Your task to perform on an android device: turn off javascript in the chrome app Image 0: 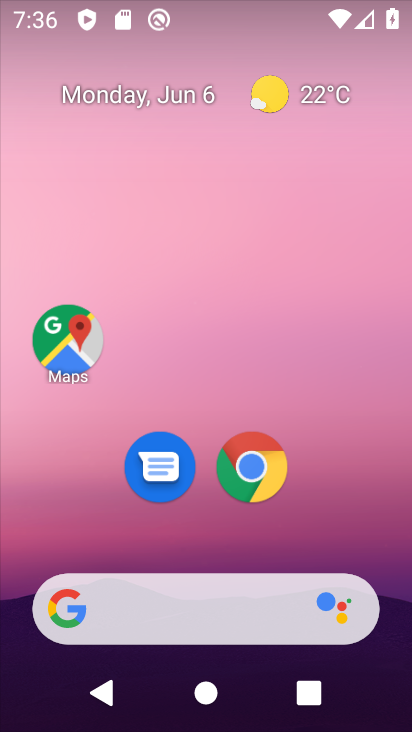
Step 0: drag from (377, 540) to (391, 126)
Your task to perform on an android device: turn off javascript in the chrome app Image 1: 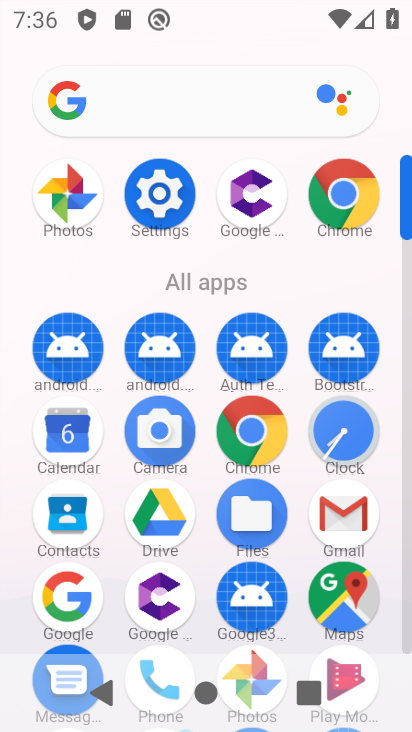
Step 1: click (269, 424)
Your task to perform on an android device: turn off javascript in the chrome app Image 2: 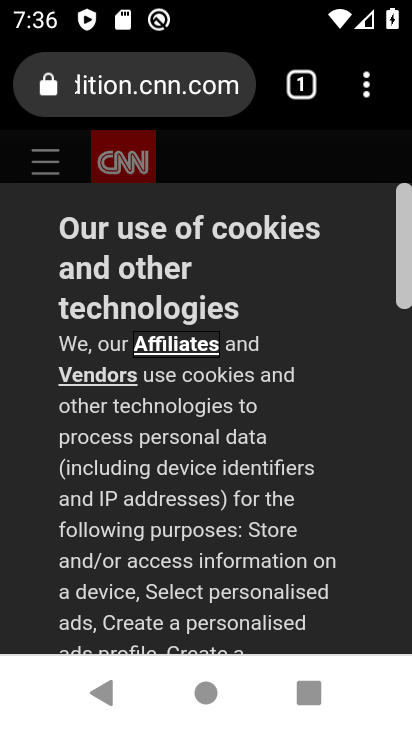
Step 2: click (368, 97)
Your task to perform on an android device: turn off javascript in the chrome app Image 3: 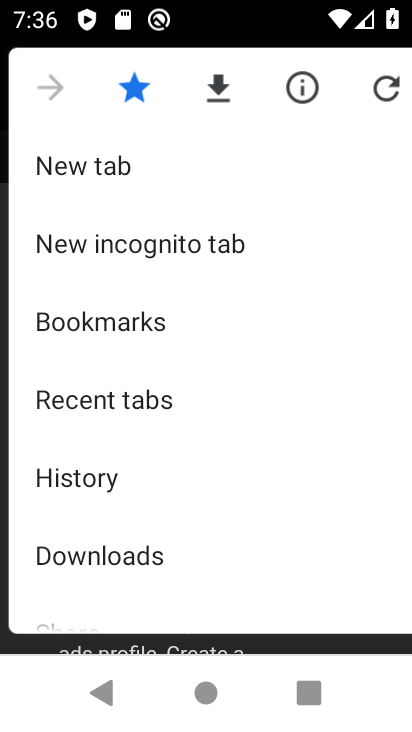
Step 3: drag from (350, 491) to (359, 352)
Your task to perform on an android device: turn off javascript in the chrome app Image 4: 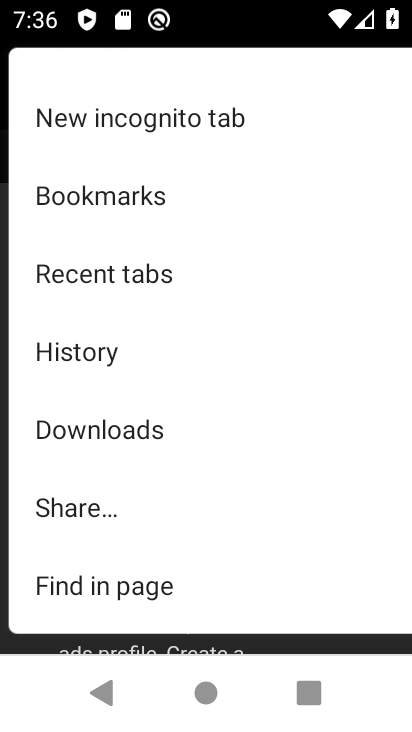
Step 4: drag from (339, 525) to (336, 366)
Your task to perform on an android device: turn off javascript in the chrome app Image 5: 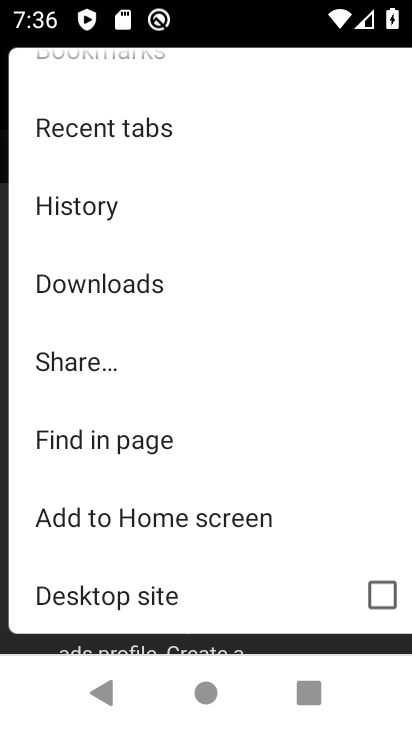
Step 5: drag from (334, 493) to (319, 341)
Your task to perform on an android device: turn off javascript in the chrome app Image 6: 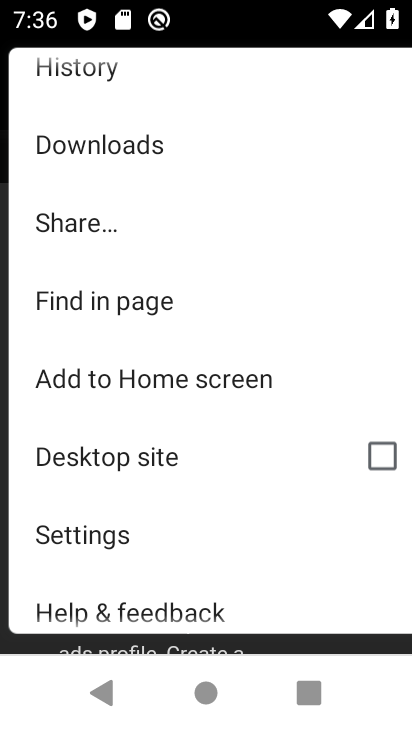
Step 6: drag from (288, 459) to (292, 293)
Your task to perform on an android device: turn off javascript in the chrome app Image 7: 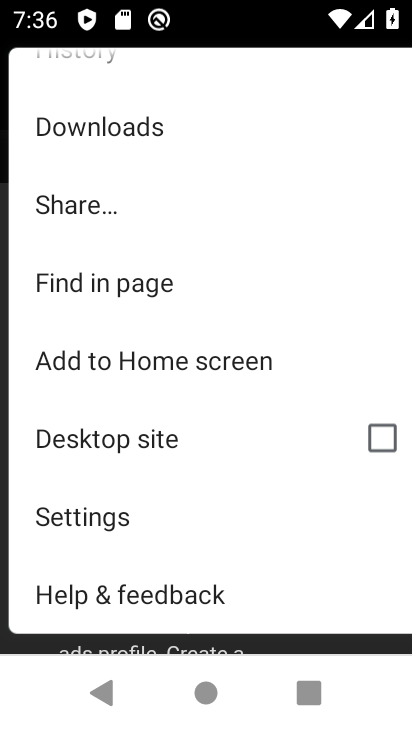
Step 7: click (190, 521)
Your task to perform on an android device: turn off javascript in the chrome app Image 8: 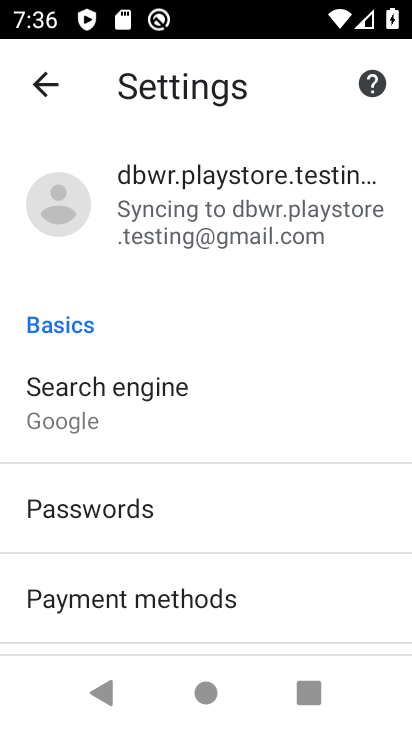
Step 8: drag from (335, 510) to (332, 351)
Your task to perform on an android device: turn off javascript in the chrome app Image 9: 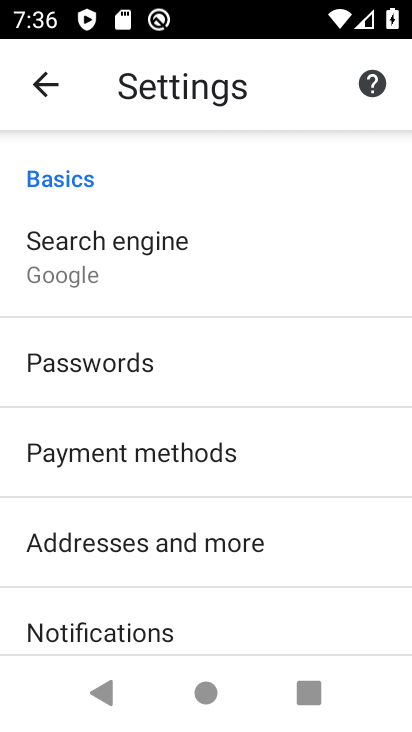
Step 9: drag from (349, 505) to (344, 349)
Your task to perform on an android device: turn off javascript in the chrome app Image 10: 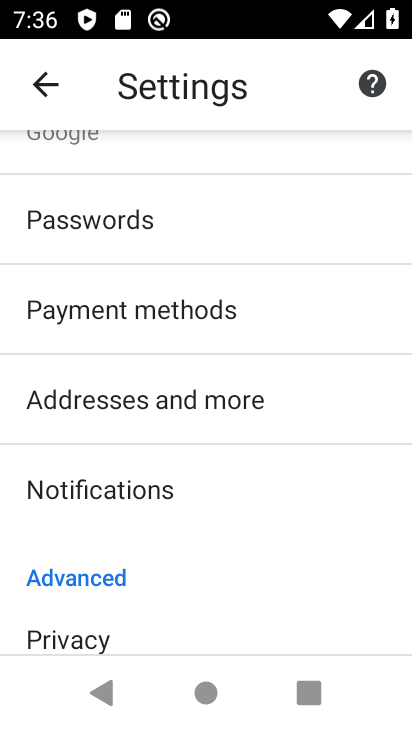
Step 10: drag from (331, 471) to (343, 337)
Your task to perform on an android device: turn off javascript in the chrome app Image 11: 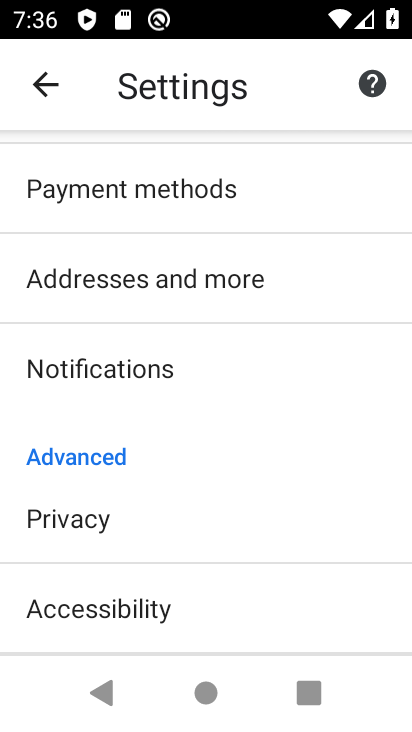
Step 11: drag from (339, 526) to (332, 383)
Your task to perform on an android device: turn off javascript in the chrome app Image 12: 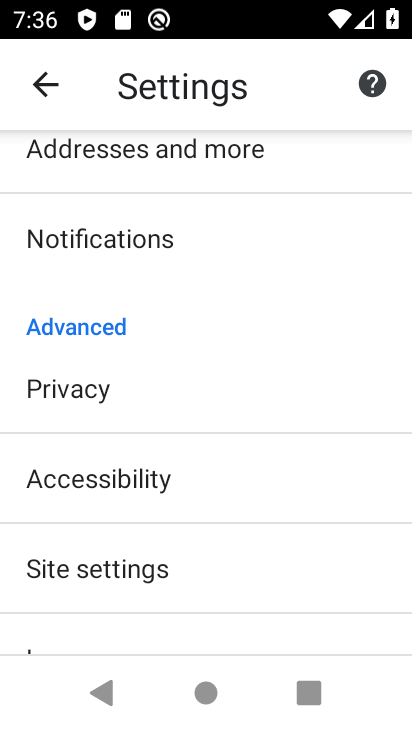
Step 12: drag from (332, 546) to (343, 396)
Your task to perform on an android device: turn off javascript in the chrome app Image 13: 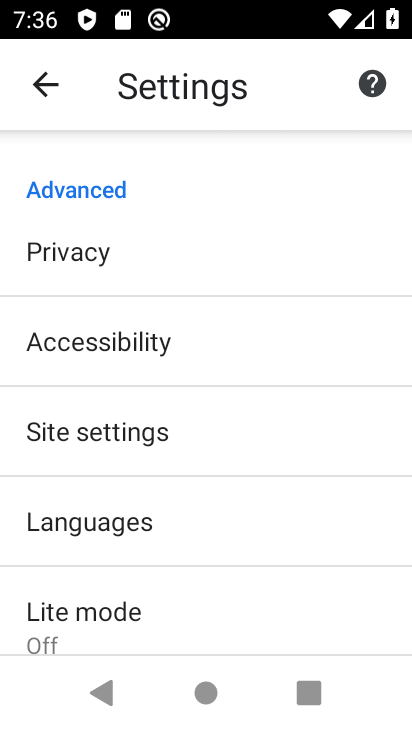
Step 13: drag from (331, 564) to (326, 457)
Your task to perform on an android device: turn off javascript in the chrome app Image 14: 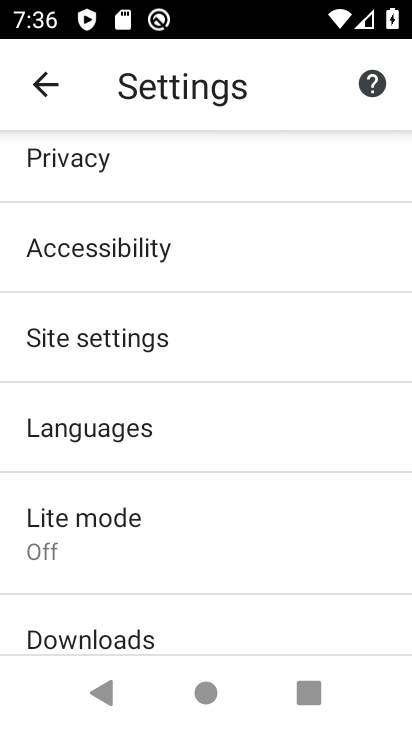
Step 14: click (246, 341)
Your task to perform on an android device: turn off javascript in the chrome app Image 15: 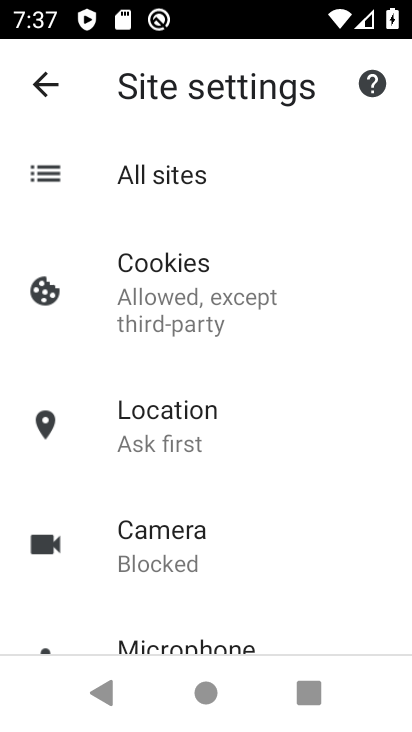
Step 15: drag from (317, 520) to (312, 403)
Your task to perform on an android device: turn off javascript in the chrome app Image 16: 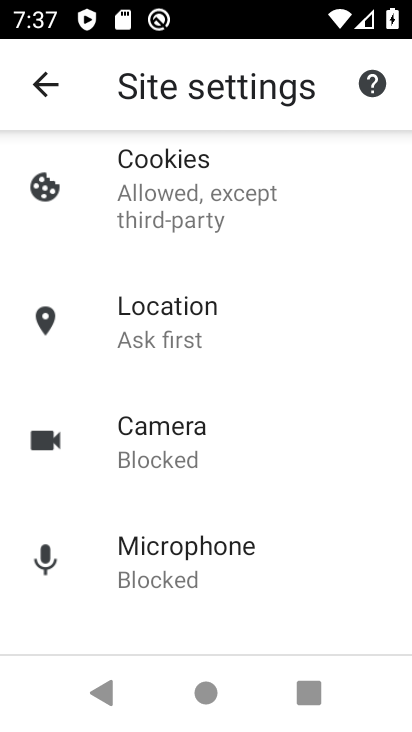
Step 16: drag from (326, 517) to (352, 383)
Your task to perform on an android device: turn off javascript in the chrome app Image 17: 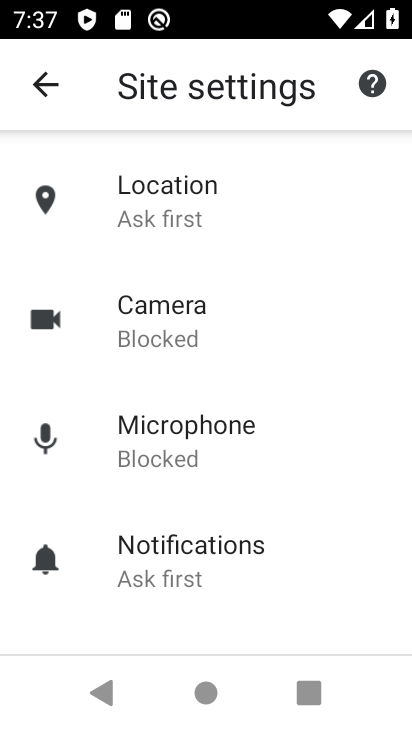
Step 17: drag from (357, 504) to (357, 349)
Your task to perform on an android device: turn off javascript in the chrome app Image 18: 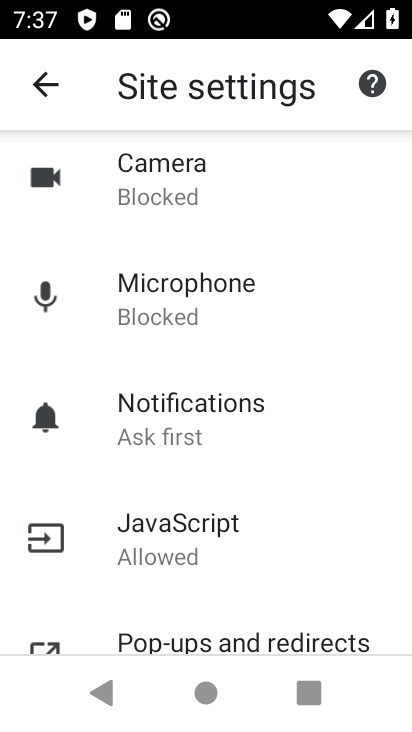
Step 18: drag from (363, 528) to (350, 405)
Your task to perform on an android device: turn off javascript in the chrome app Image 19: 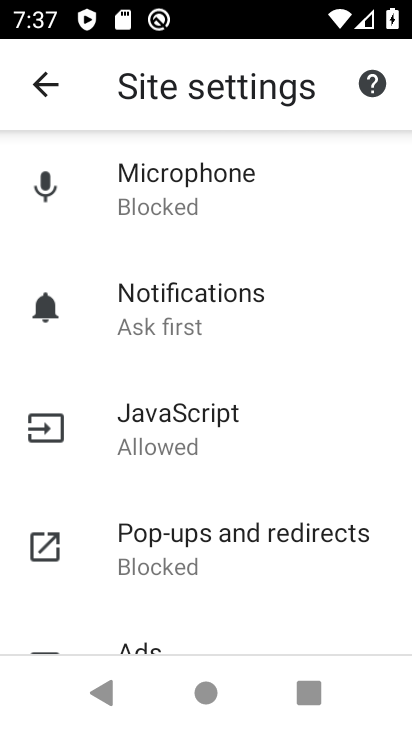
Step 19: drag from (335, 583) to (347, 440)
Your task to perform on an android device: turn off javascript in the chrome app Image 20: 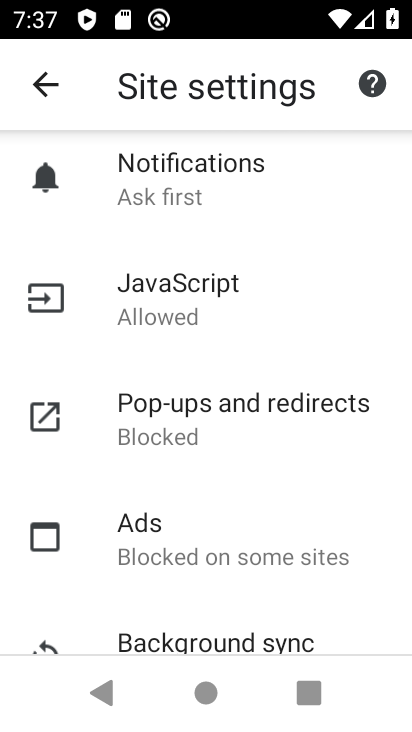
Step 20: click (213, 327)
Your task to perform on an android device: turn off javascript in the chrome app Image 21: 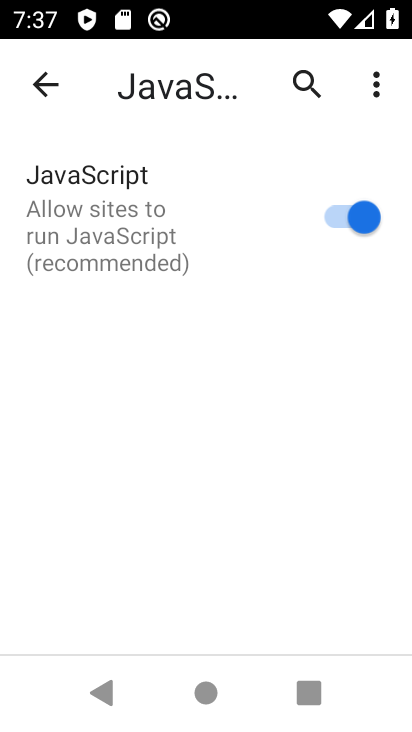
Step 21: click (355, 220)
Your task to perform on an android device: turn off javascript in the chrome app Image 22: 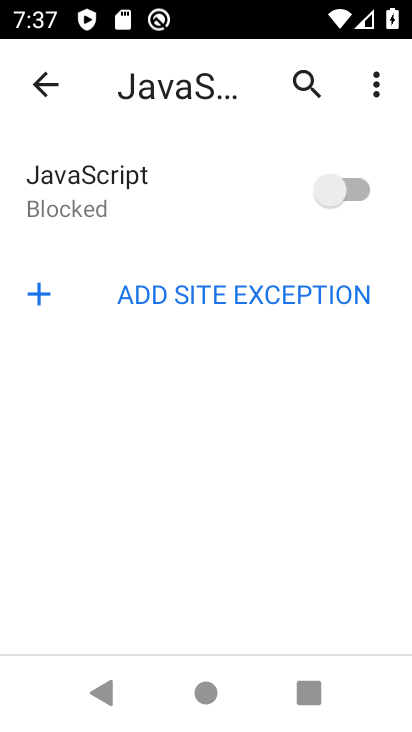
Step 22: task complete